Your task to perform on an android device: Open Reddit.com Image 0: 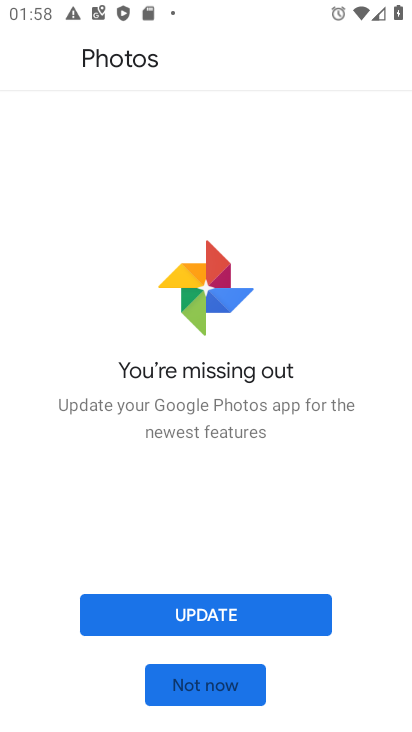
Step 0: press home button
Your task to perform on an android device: Open Reddit.com Image 1: 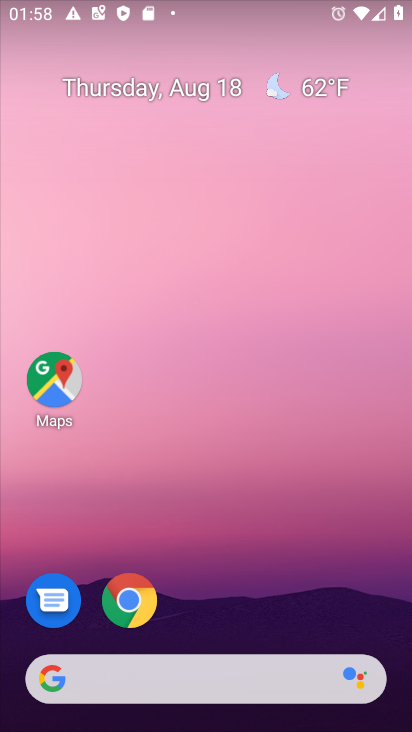
Step 1: click (51, 682)
Your task to perform on an android device: Open Reddit.com Image 2: 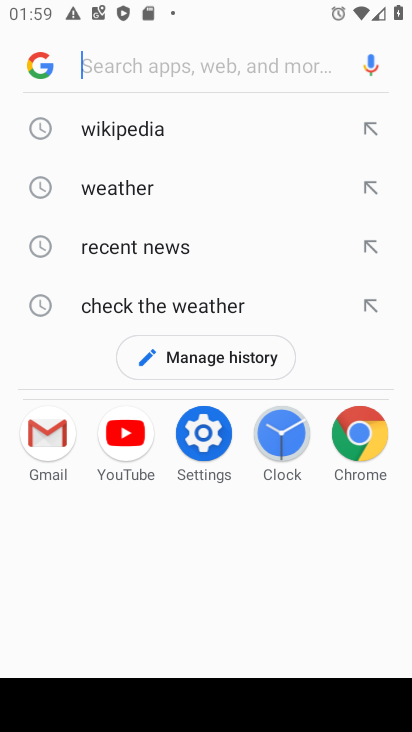
Step 2: type " Reddit.com"
Your task to perform on an android device: Open Reddit.com Image 3: 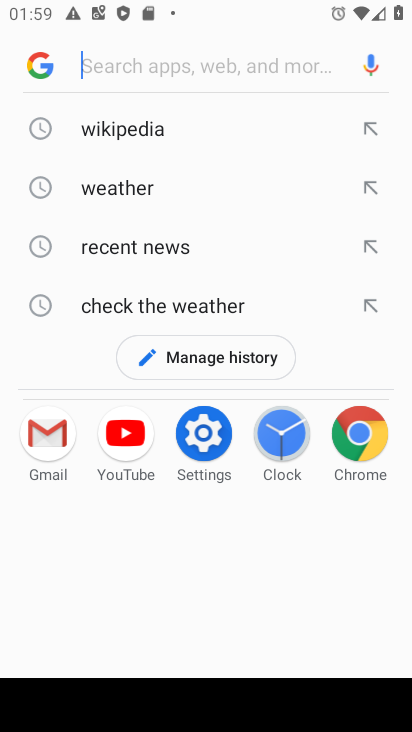
Step 3: click (143, 63)
Your task to perform on an android device: Open Reddit.com Image 4: 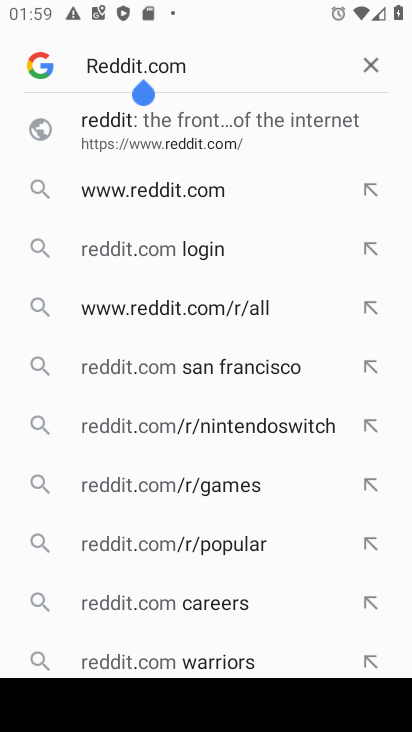
Step 4: click (172, 187)
Your task to perform on an android device: Open Reddit.com Image 5: 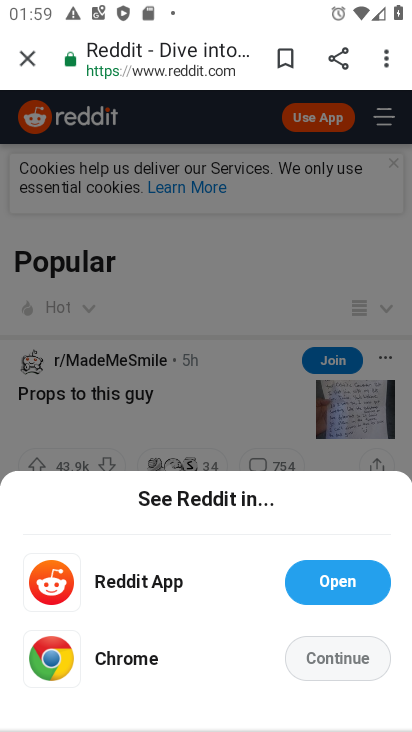
Step 5: click (252, 221)
Your task to perform on an android device: Open Reddit.com Image 6: 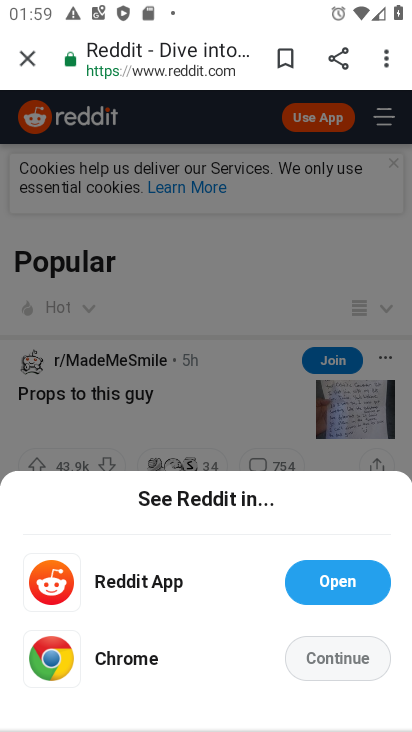
Step 6: task complete